Your task to perform on an android device: turn off airplane mode Image 0: 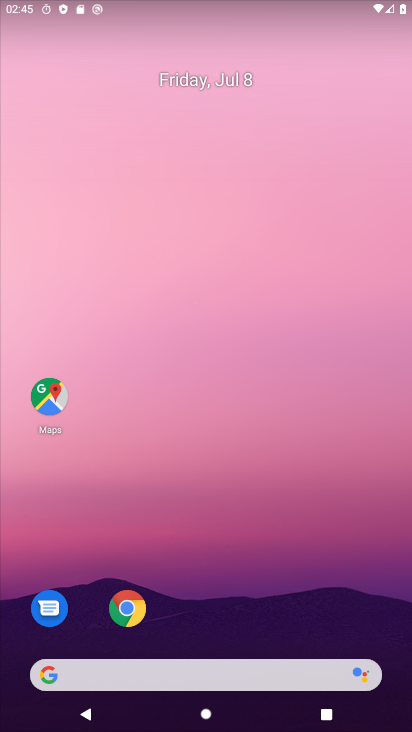
Step 0: drag from (234, 623) to (232, 131)
Your task to perform on an android device: turn off airplane mode Image 1: 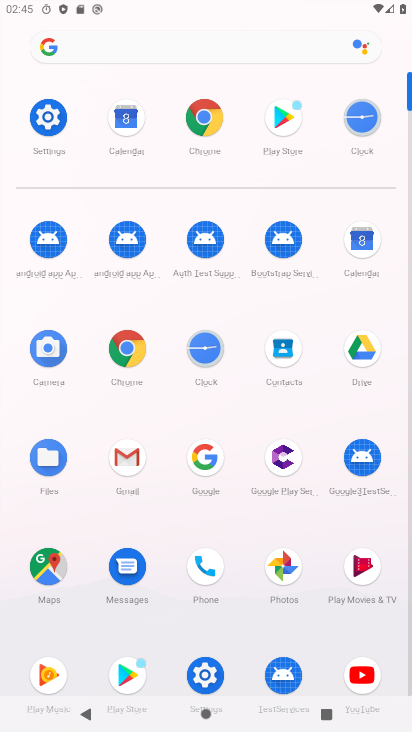
Step 1: click (46, 116)
Your task to perform on an android device: turn off airplane mode Image 2: 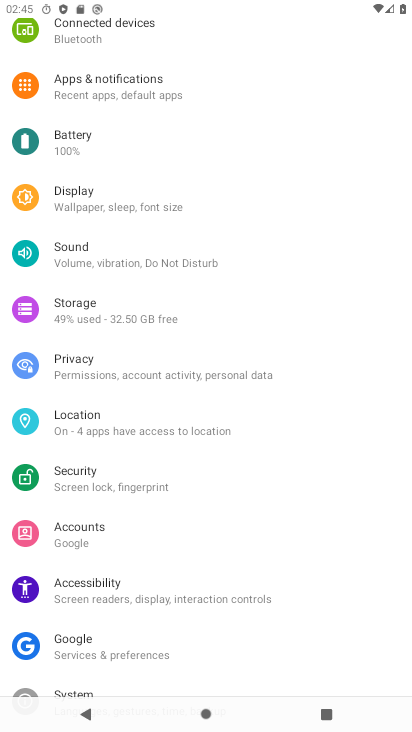
Step 2: drag from (162, 147) to (187, 455)
Your task to perform on an android device: turn off airplane mode Image 3: 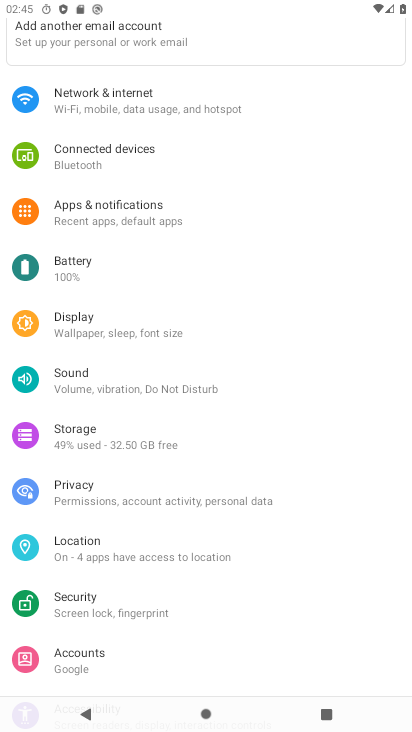
Step 3: click (98, 110)
Your task to perform on an android device: turn off airplane mode Image 4: 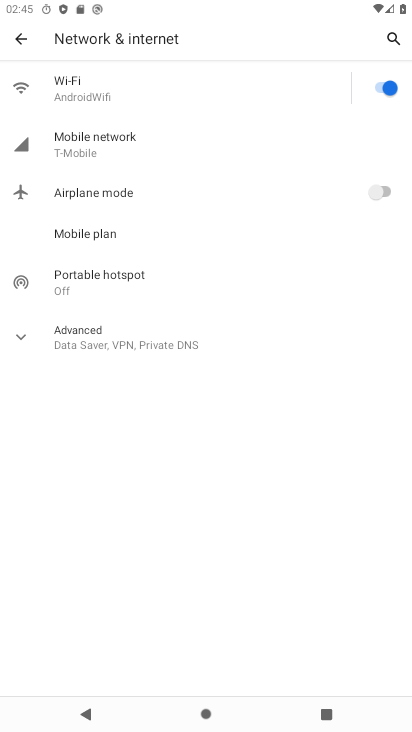
Step 4: task complete